Your task to perform on an android device: Go to CNN.com Image 0: 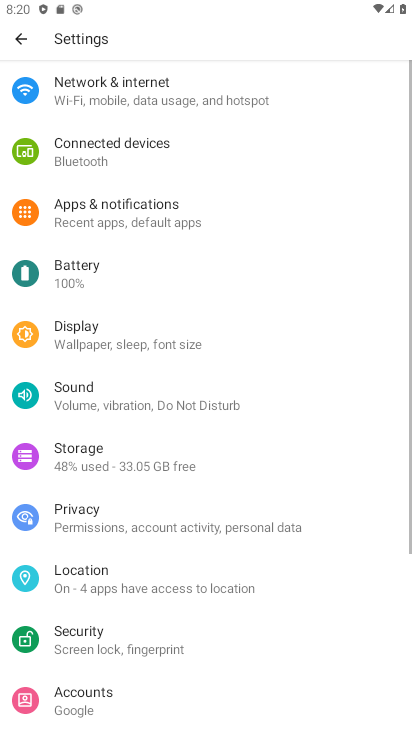
Step 0: press home button
Your task to perform on an android device: Go to CNN.com Image 1: 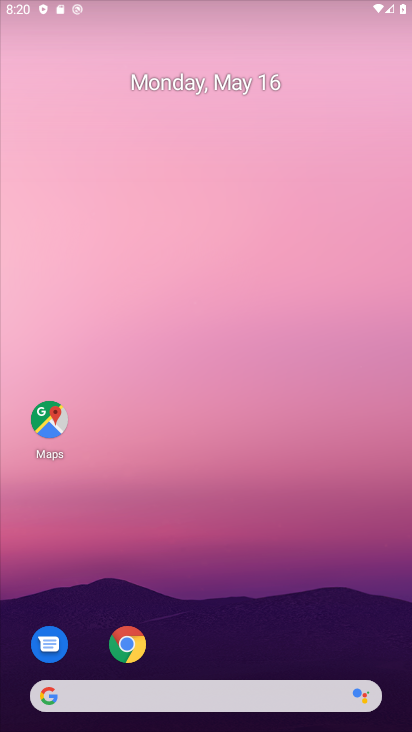
Step 1: drag from (222, 646) to (170, 80)
Your task to perform on an android device: Go to CNN.com Image 2: 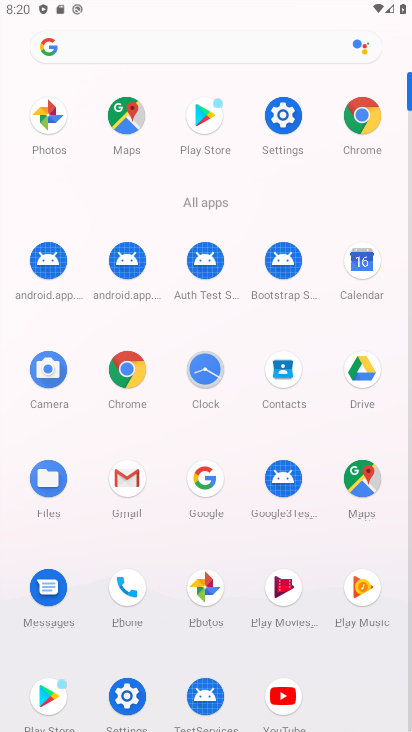
Step 2: click (205, 483)
Your task to perform on an android device: Go to CNN.com Image 3: 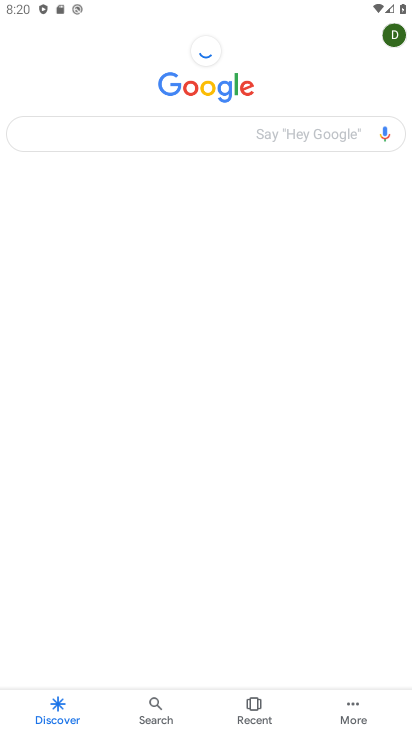
Step 3: click (136, 127)
Your task to perform on an android device: Go to CNN.com Image 4: 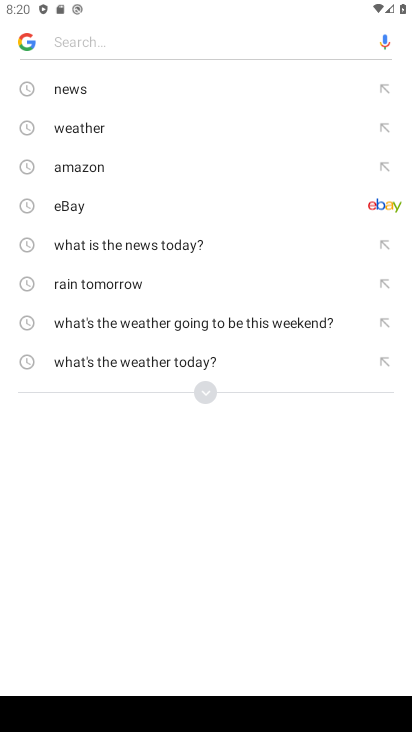
Step 4: type "cnn.com"
Your task to perform on an android device: Go to CNN.com Image 5: 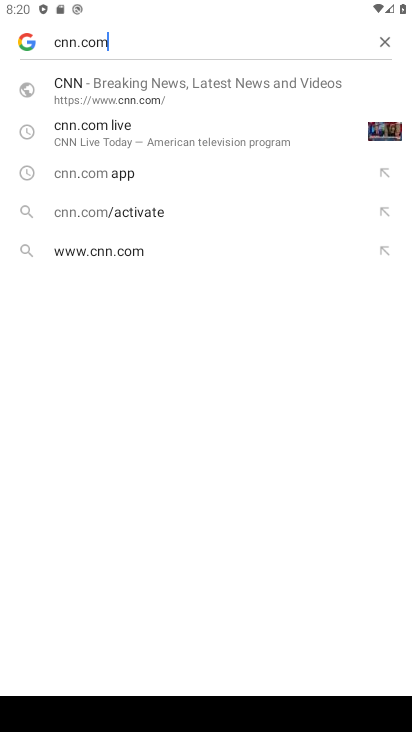
Step 5: click (176, 84)
Your task to perform on an android device: Go to CNN.com Image 6: 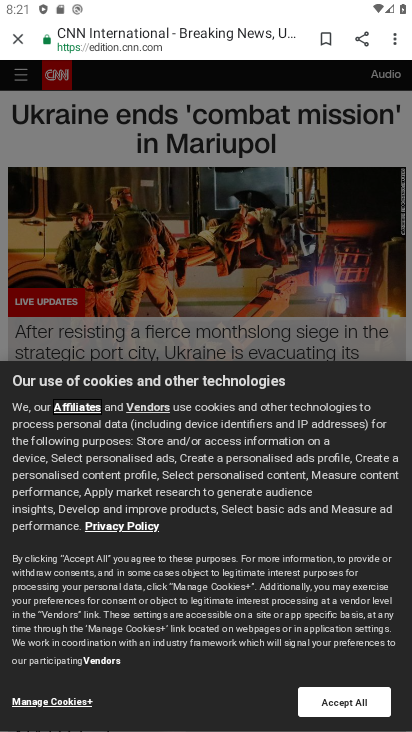
Step 6: task complete